Your task to perform on an android device: Set the phone to "Do not disturb". Image 0: 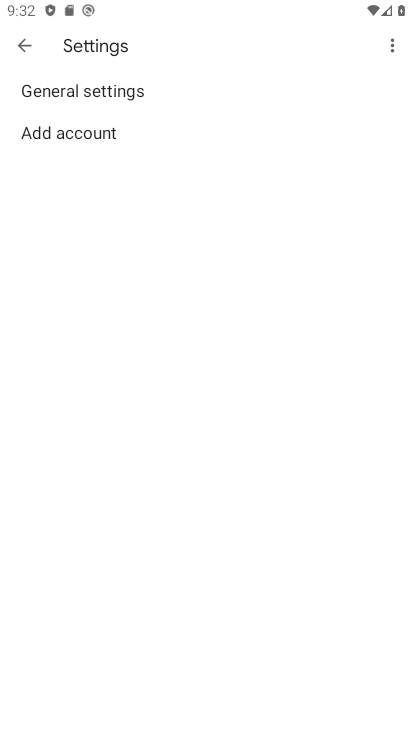
Step 0: press home button
Your task to perform on an android device: Set the phone to "Do not disturb". Image 1: 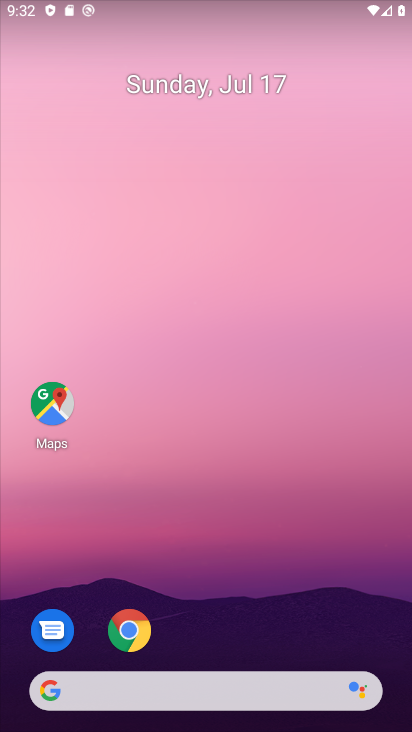
Step 1: drag from (238, 8) to (180, 677)
Your task to perform on an android device: Set the phone to "Do not disturb". Image 2: 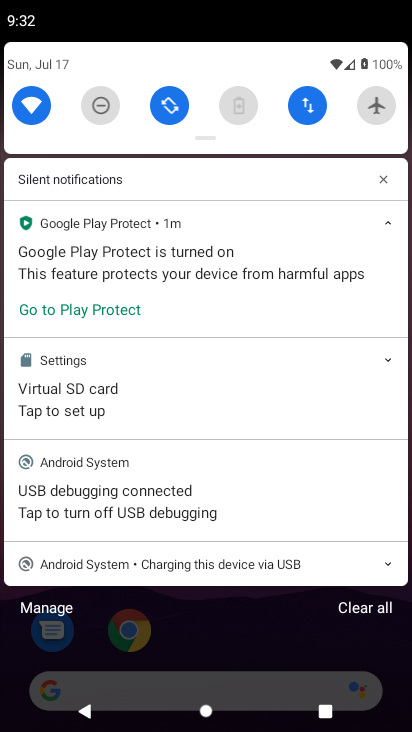
Step 2: click (104, 109)
Your task to perform on an android device: Set the phone to "Do not disturb". Image 3: 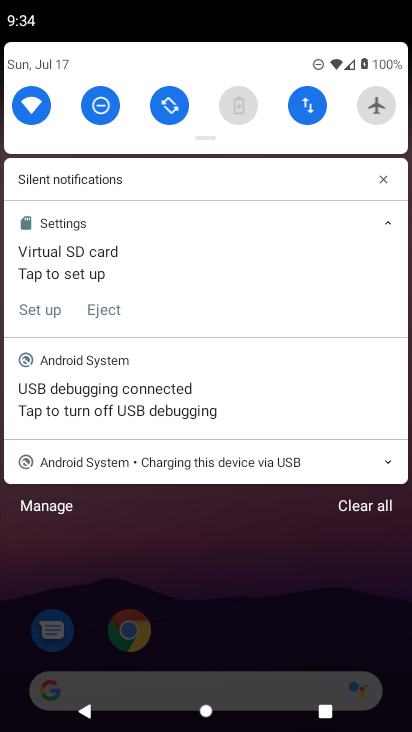
Step 3: task complete